Your task to perform on an android device: Open the stopwatch Image 0: 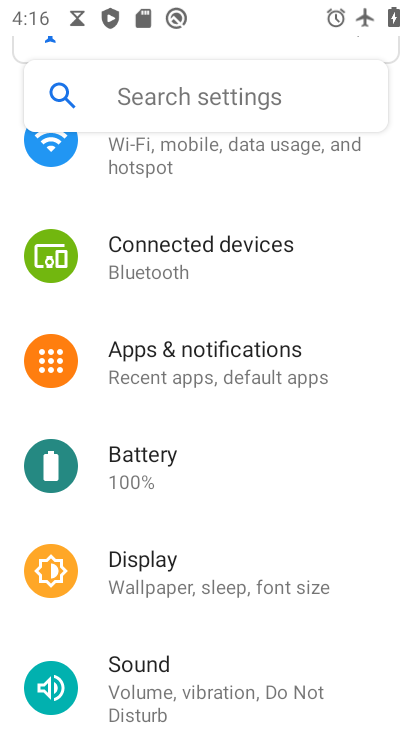
Step 0: press home button
Your task to perform on an android device: Open the stopwatch Image 1: 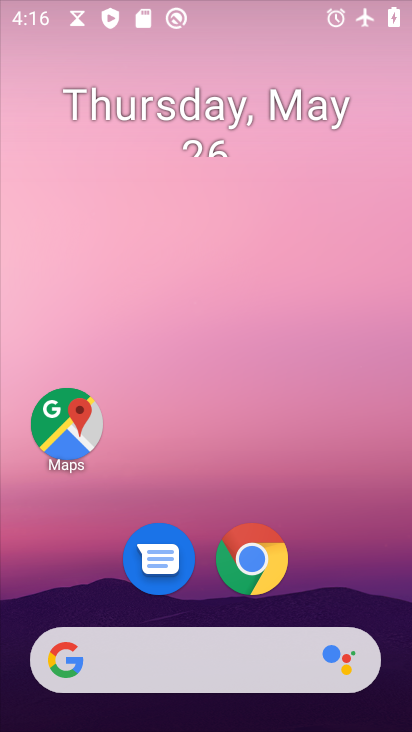
Step 1: drag from (336, 536) to (130, 18)
Your task to perform on an android device: Open the stopwatch Image 2: 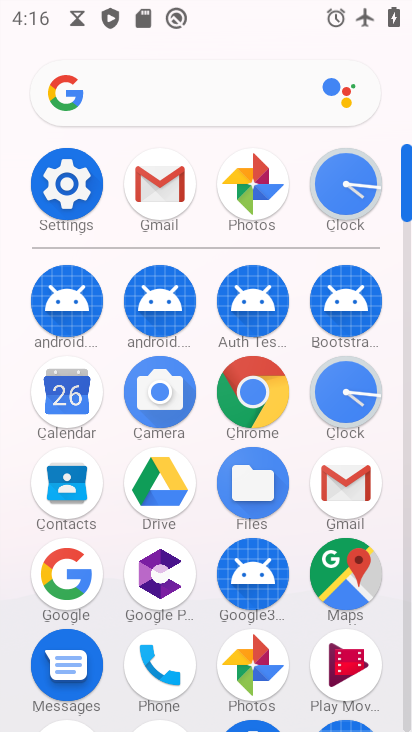
Step 2: click (353, 388)
Your task to perform on an android device: Open the stopwatch Image 3: 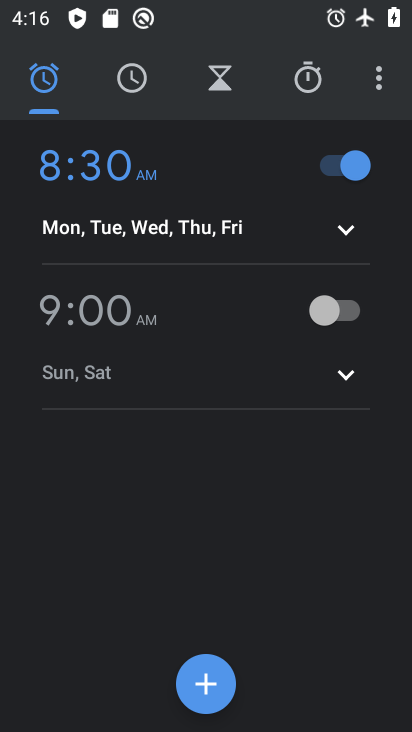
Step 3: click (316, 82)
Your task to perform on an android device: Open the stopwatch Image 4: 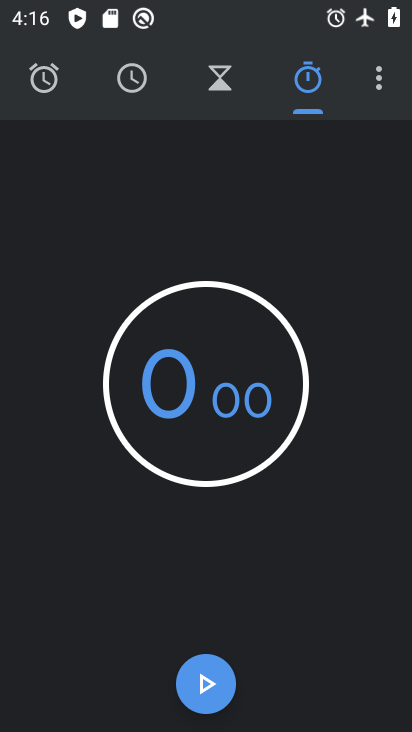
Step 4: task complete